Your task to perform on an android device: turn on javascript in the chrome app Image 0: 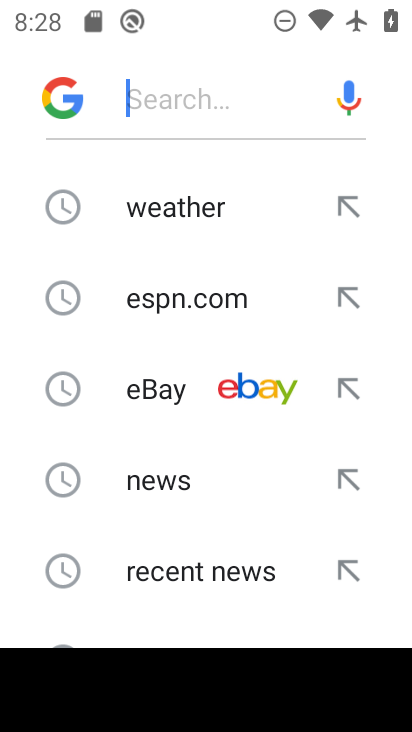
Step 0: press home button
Your task to perform on an android device: turn on javascript in the chrome app Image 1: 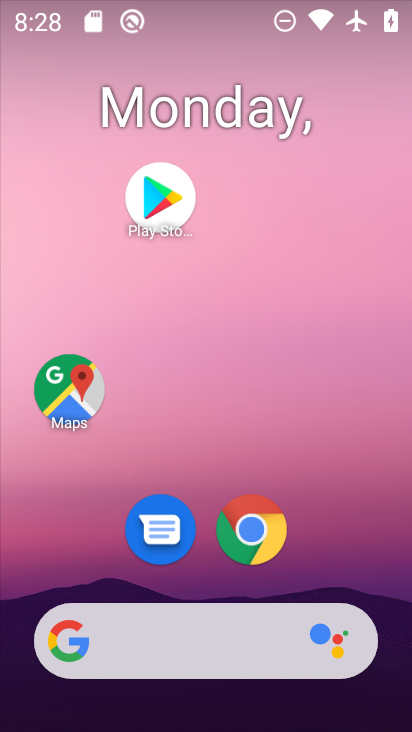
Step 1: click (251, 517)
Your task to perform on an android device: turn on javascript in the chrome app Image 2: 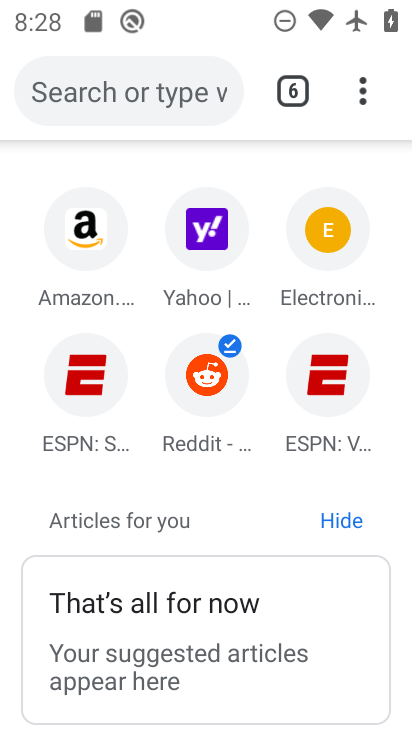
Step 2: click (362, 87)
Your task to perform on an android device: turn on javascript in the chrome app Image 3: 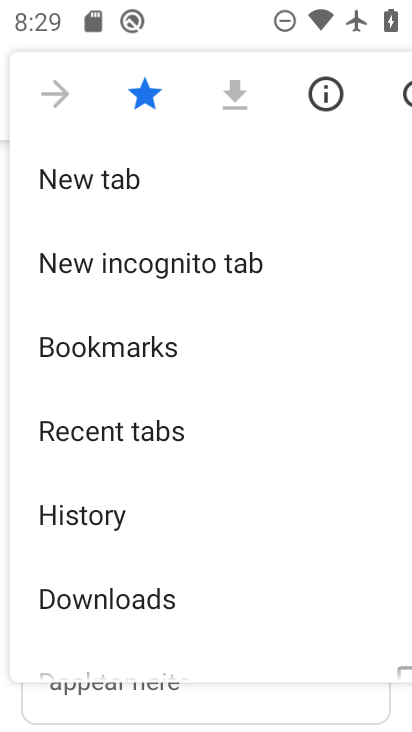
Step 3: drag from (237, 514) to (218, 121)
Your task to perform on an android device: turn on javascript in the chrome app Image 4: 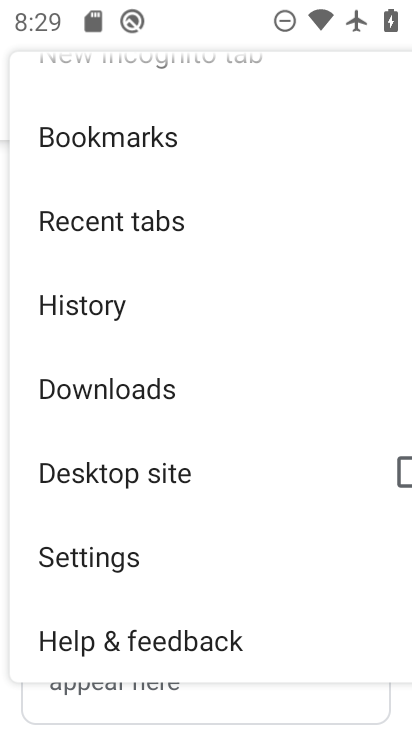
Step 4: click (97, 549)
Your task to perform on an android device: turn on javascript in the chrome app Image 5: 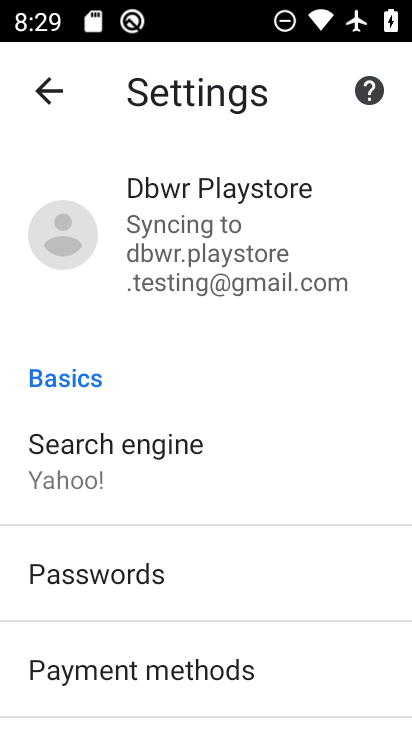
Step 5: drag from (196, 609) to (198, 410)
Your task to perform on an android device: turn on javascript in the chrome app Image 6: 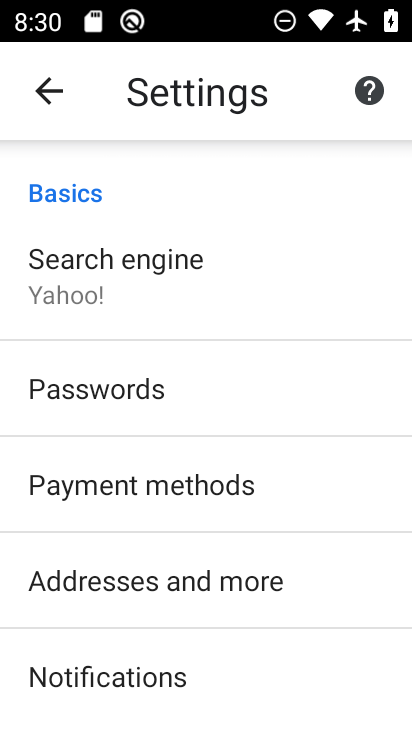
Step 6: drag from (205, 611) to (219, 342)
Your task to perform on an android device: turn on javascript in the chrome app Image 7: 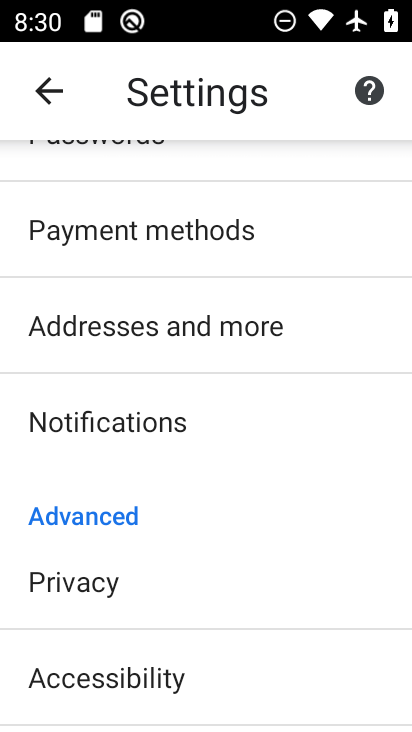
Step 7: drag from (195, 544) to (195, 311)
Your task to perform on an android device: turn on javascript in the chrome app Image 8: 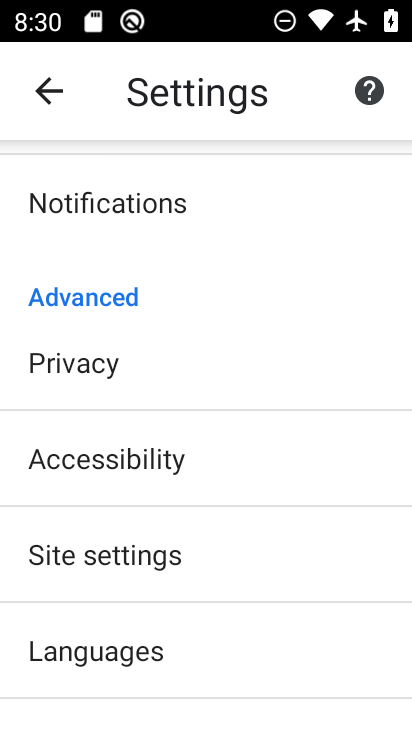
Step 8: click (112, 557)
Your task to perform on an android device: turn on javascript in the chrome app Image 9: 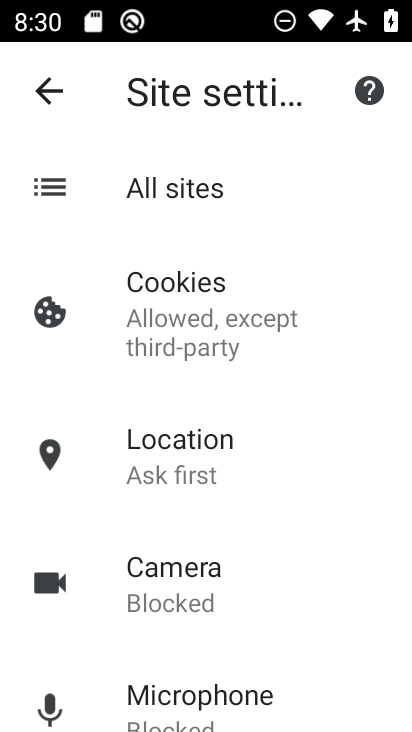
Step 9: drag from (265, 600) to (265, 339)
Your task to perform on an android device: turn on javascript in the chrome app Image 10: 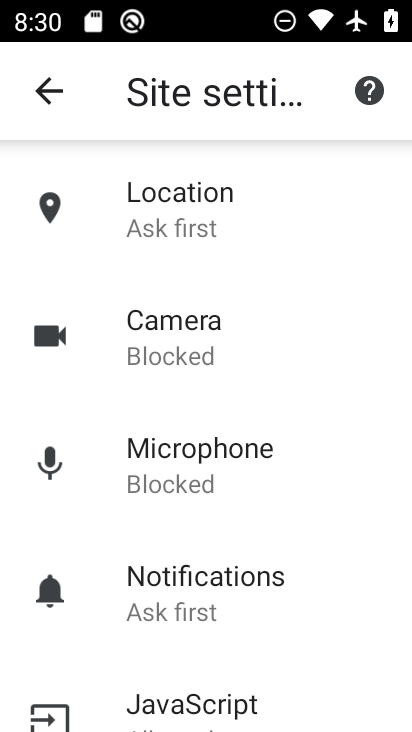
Step 10: click (192, 710)
Your task to perform on an android device: turn on javascript in the chrome app Image 11: 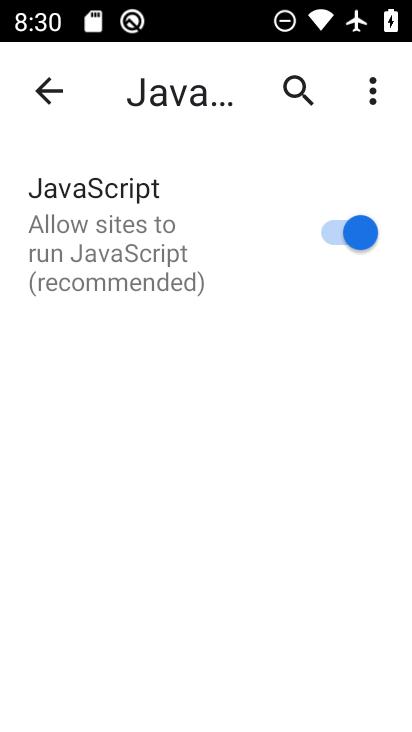
Step 11: task complete